Your task to perform on an android device: turn pop-ups off in chrome Image 0: 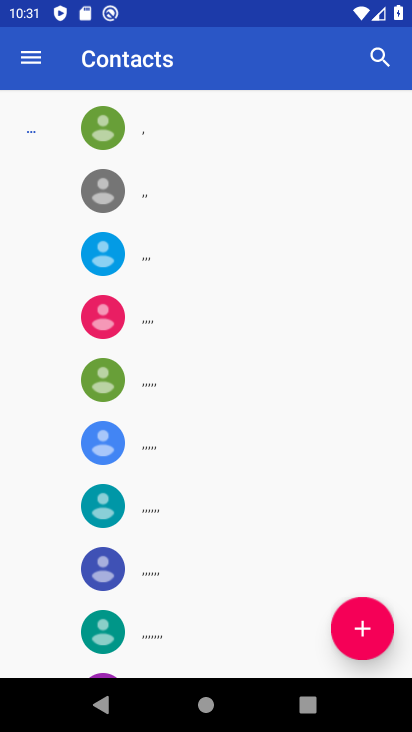
Step 0: press home button
Your task to perform on an android device: turn pop-ups off in chrome Image 1: 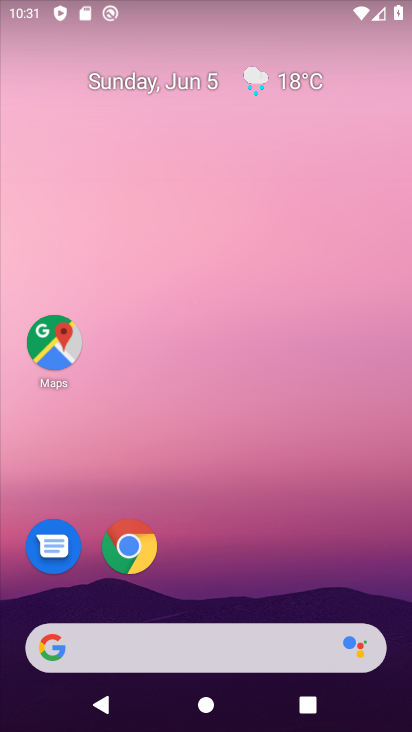
Step 1: click (151, 723)
Your task to perform on an android device: turn pop-ups off in chrome Image 2: 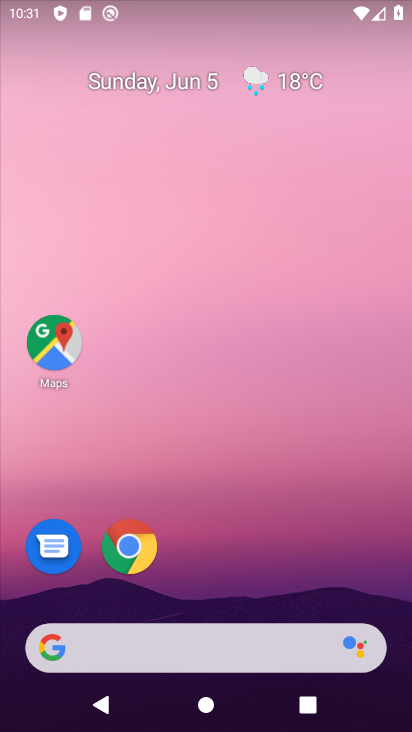
Step 2: click (128, 564)
Your task to perform on an android device: turn pop-ups off in chrome Image 3: 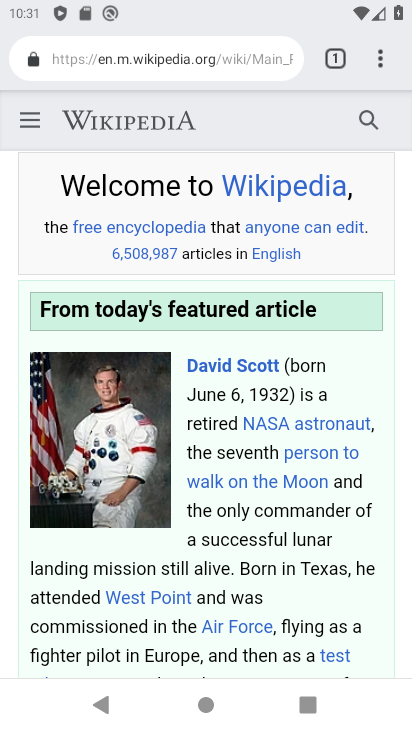
Step 3: click (375, 62)
Your task to perform on an android device: turn pop-ups off in chrome Image 4: 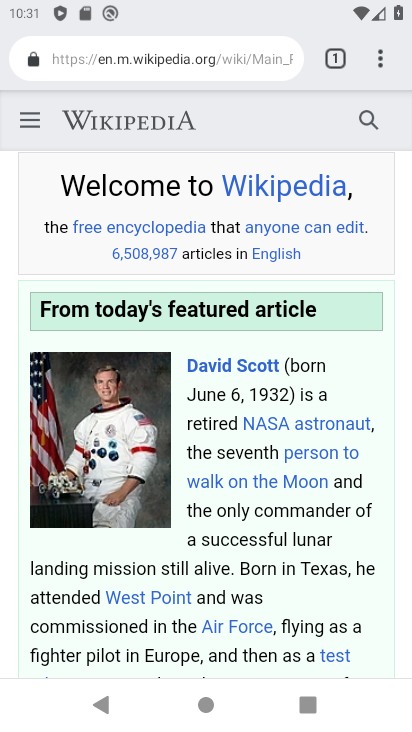
Step 4: click (378, 71)
Your task to perform on an android device: turn pop-ups off in chrome Image 5: 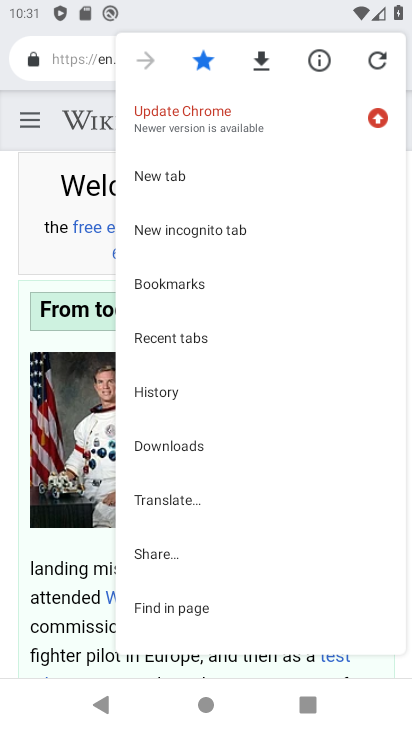
Step 5: drag from (199, 585) to (212, 326)
Your task to perform on an android device: turn pop-ups off in chrome Image 6: 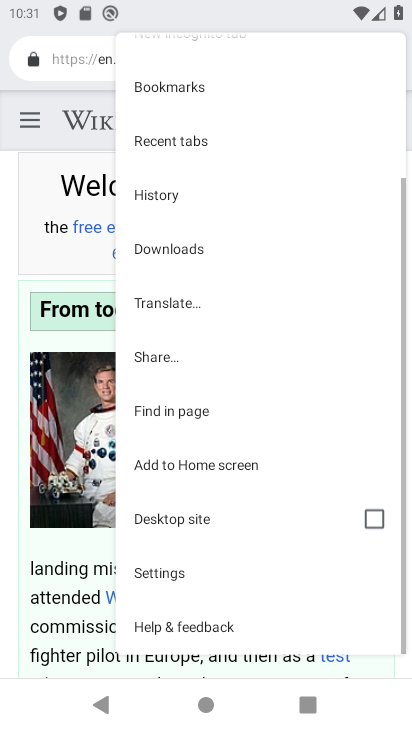
Step 6: click (169, 581)
Your task to perform on an android device: turn pop-ups off in chrome Image 7: 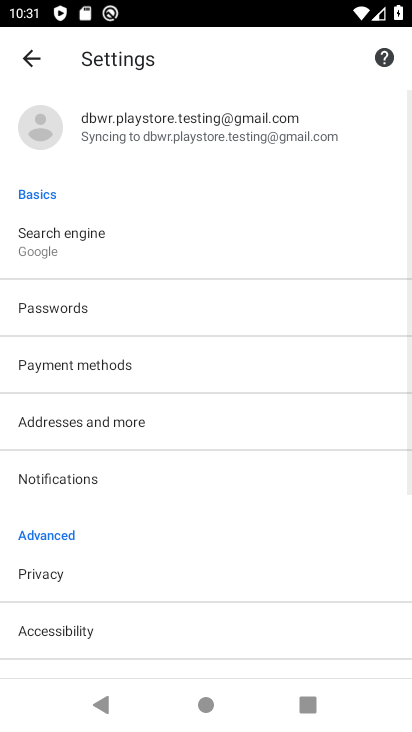
Step 7: drag from (136, 605) to (147, 321)
Your task to perform on an android device: turn pop-ups off in chrome Image 8: 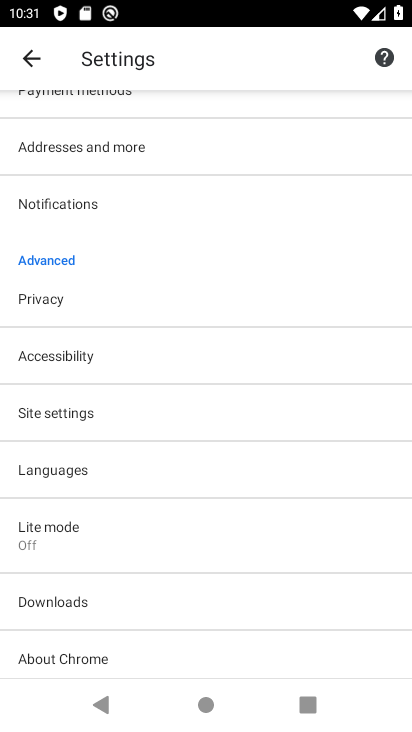
Step 8: drag from (132, 622) to (151, 388)
Your task to perform on an android device: turn pop-ups off in chrome Image 9: 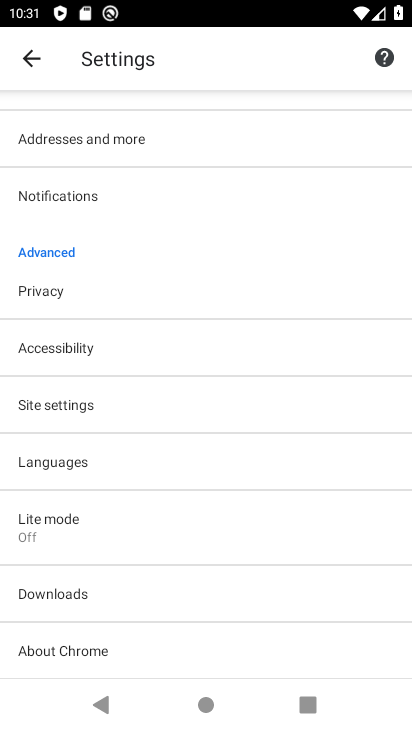
Step 9: click (82, 407)
Your task to perform on an android device: turn pop-ups off in chrome Image 10: 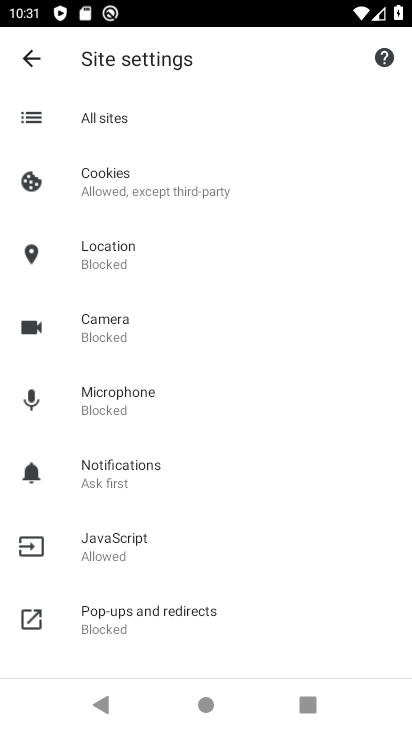
Step 10: click (100, 638)
Your task to perform on an android device: turn pop-ups off in chrome Image 11: 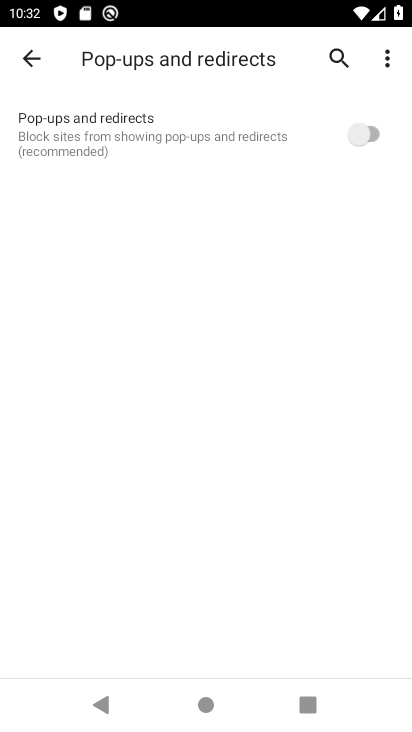
Step 11: task complete